Your task to perform on an android device: install app "Expedia: Hotels, Flights & Car" Image 0: 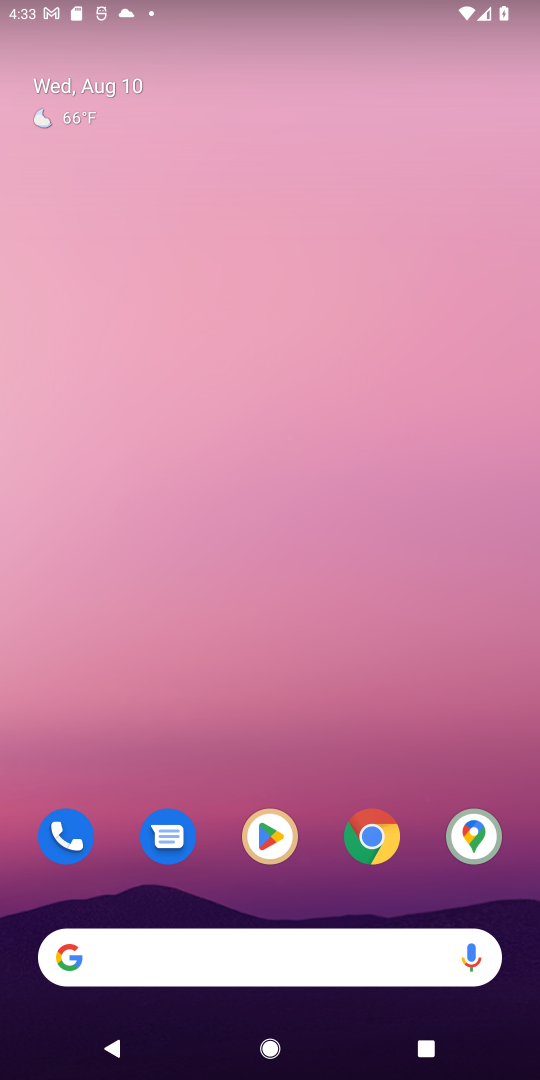
Step 0: drag from (347, 949) to (420, 240)
Your task to perform on an android device: install app "Expedia: Hotels, Flights & Car" Image 1: 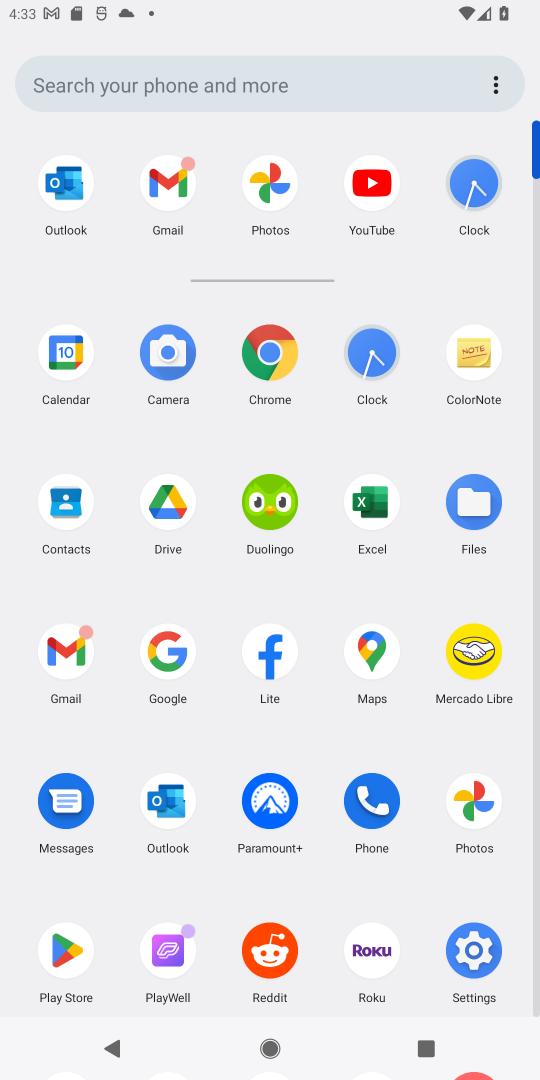
Step 1: click (50, 928)
Your task to perform on an android device: install app "Expedia: Hotels, Flights & Car" Image 2: 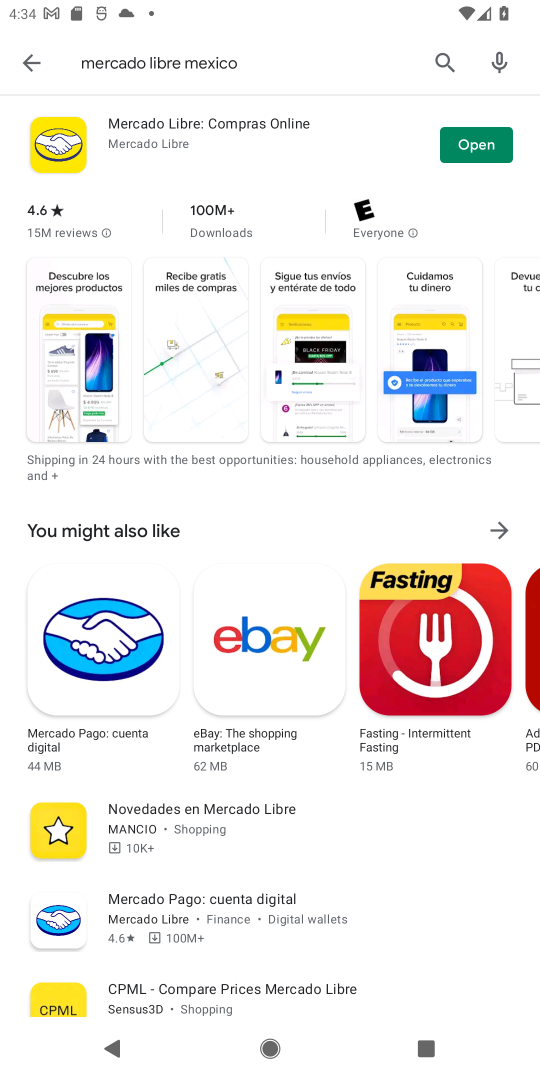
Step 2: click (28, 63)
Your task to perform on an android device: install app "Expedia: Hotels, Flights & Car" Image 3: 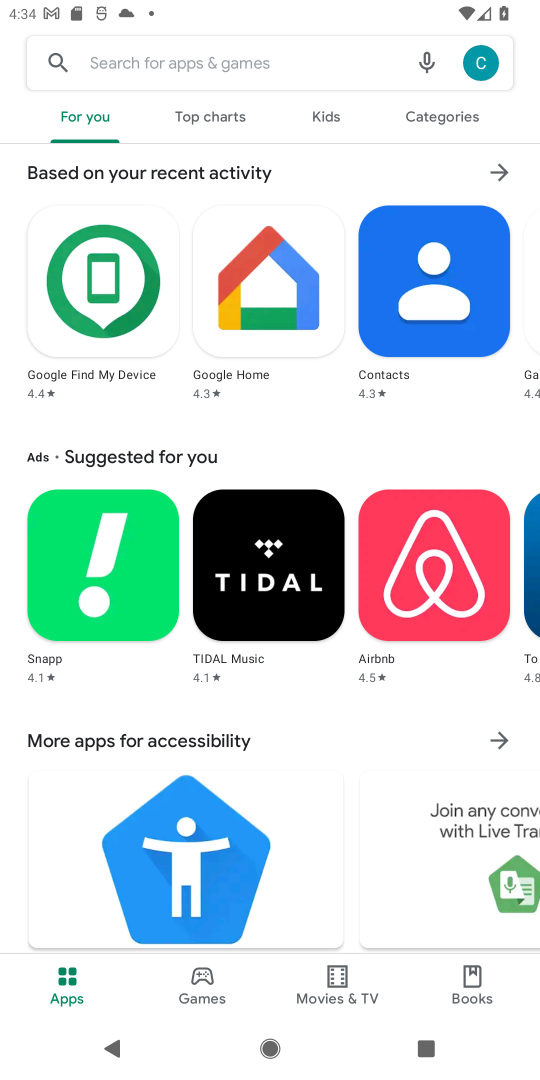
Step 3: click (185, 61)
Your task to perform on an android device: install app "Expedia: Hotels, Flights & Car" Image 4: 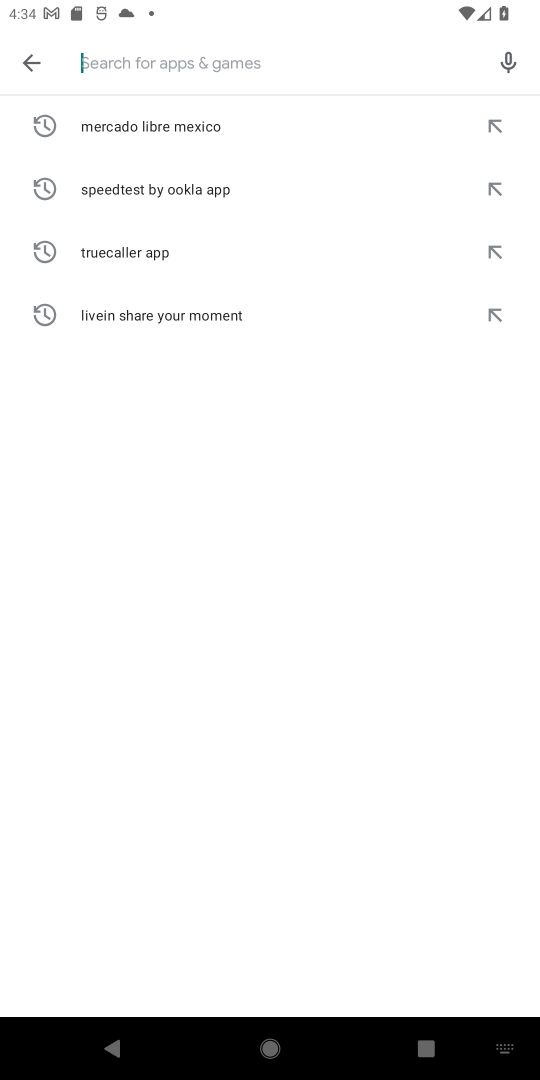
Step 4: type "Expedia: Hotels, Flights & Car "
Your task to perform on an android device: install app "Expedia: Hotels, Flights & Car" Image 5: 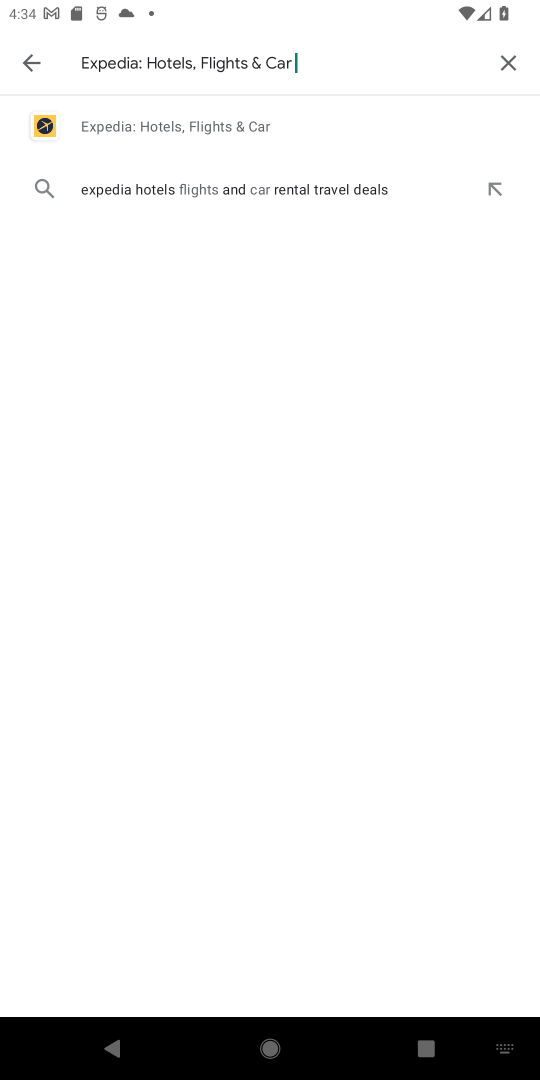
Step 5: click (193, 120)
Your task to perform on an android device: install app "Expedia: Hotels, Flights & Car" Image 6: 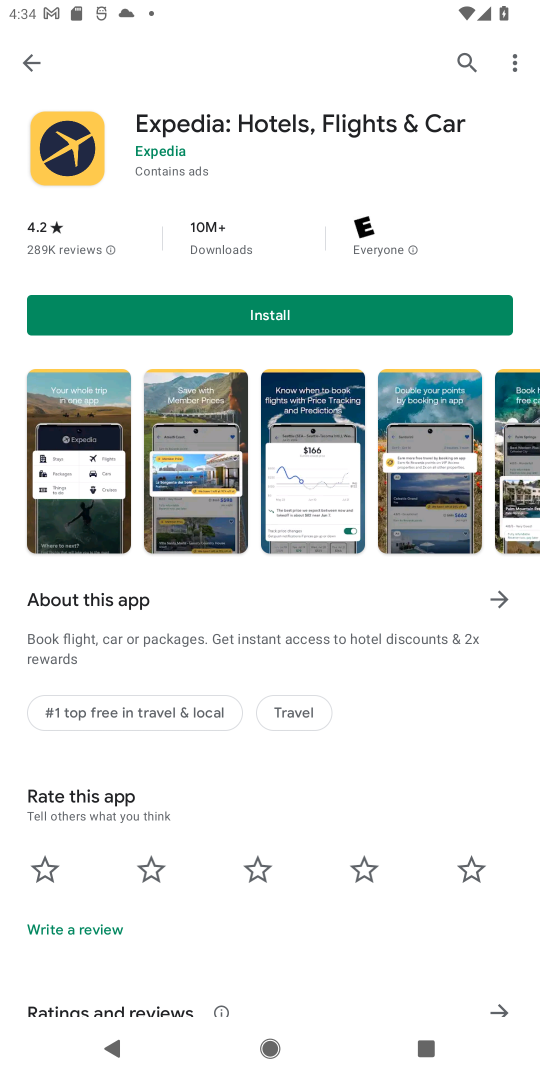
Step 6: click (270, 314)
Your task to perform on an android device: install app "Expedia: Hotels, Flights & Car" Image 7: 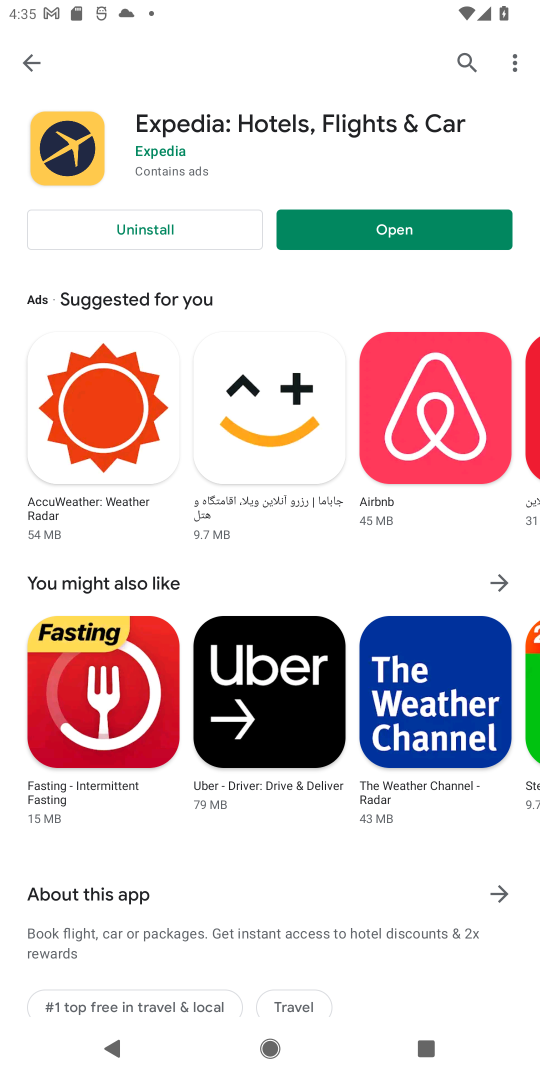
Step 7: task complete